Your task to perform on an android device: turn off priority inbox in the gmail app Image 0: 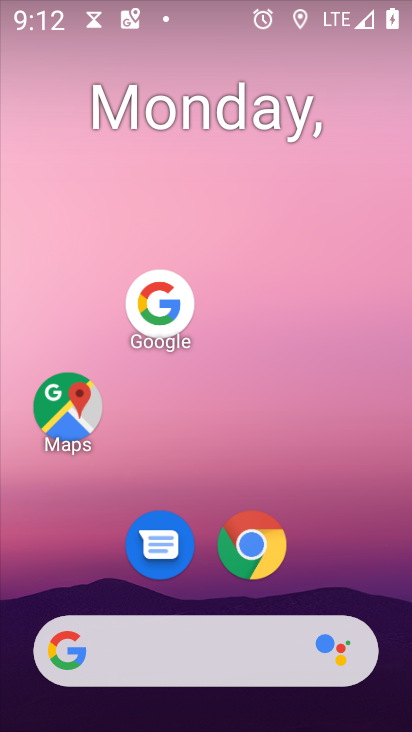
Step 0: press home button
Your task to perform on an android device: turn off priority inbox in the gmail app Image 1: 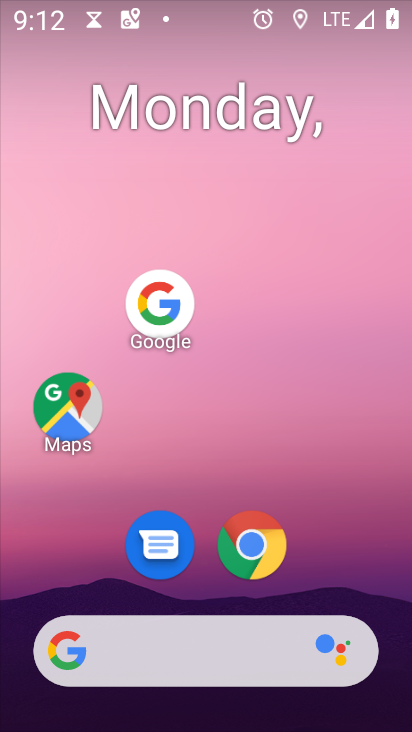
Step 1: drag from (155, 641) to (278, 224)
Your task to perform on an android device: turn off priority inbox in the gmail app Image 2: 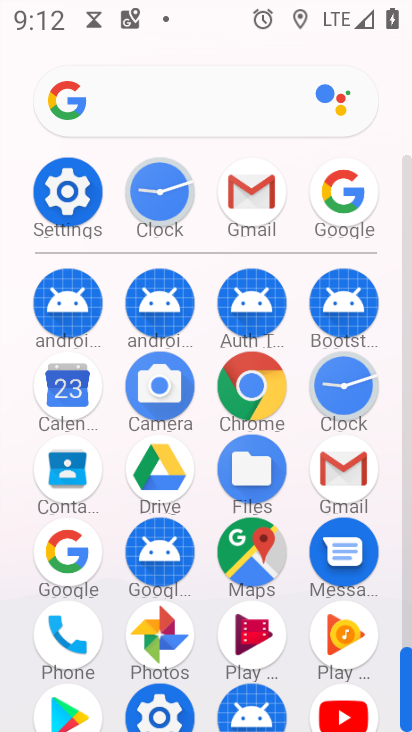
Step 2: click (254, 204)
Your task to perform on an android device: turn off priority inbox in the gmail app Image 3: 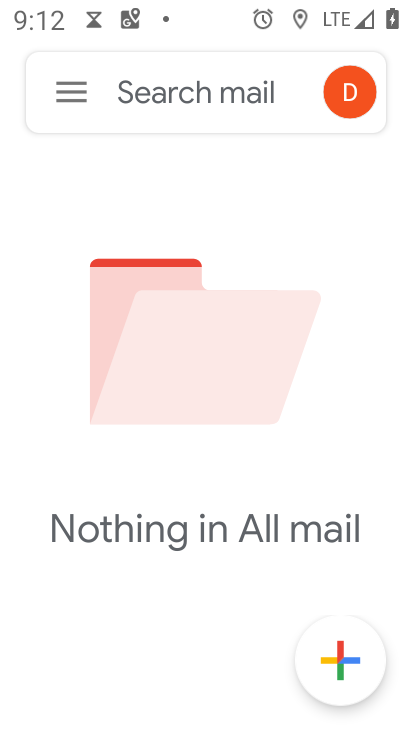
Step 3: click (71, 93)
Your task to perform on an android device: turn off priority inbox in the gmail app Image 4: 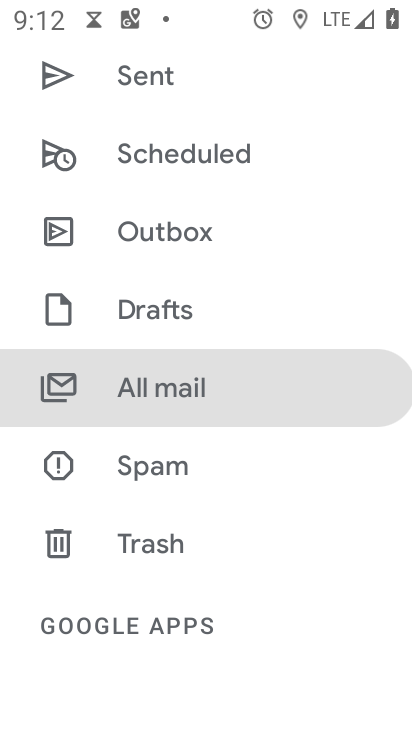
Step 4: drag from (230, 567) to (322, 43)
Your task to perform on an android device: turn off priority inbox in the gmail app Image 5: 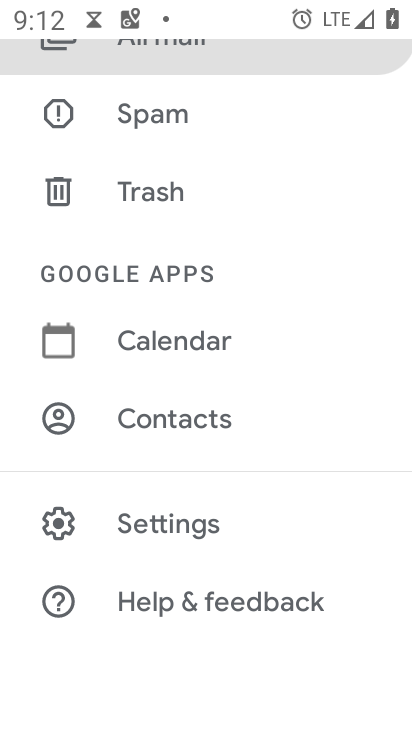
Step 5: click (192, 528)
Your task to perform on an android device: turn off priority inbox in the gmail app Image 6: 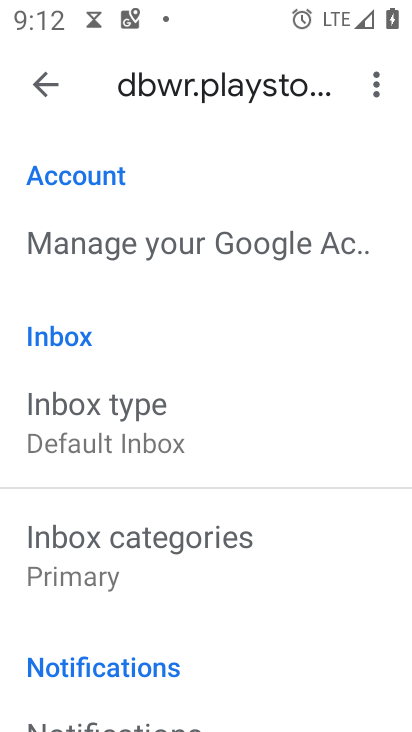
Step 6: click (101, 419)
Your task to perform on an android device: turn off priority inbox in the gmail app Image 7: 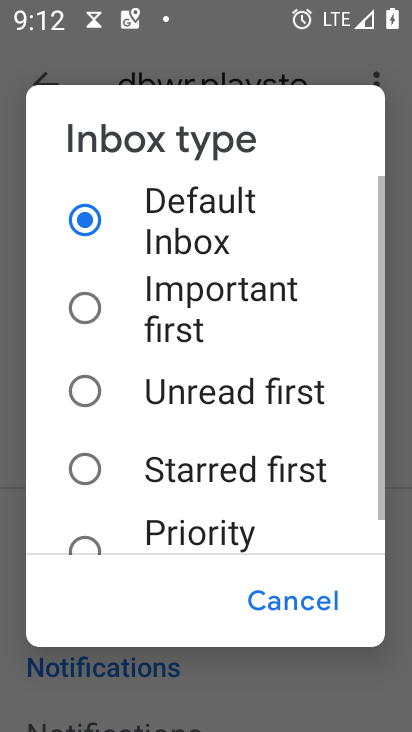
Step 7: task complete